Your task to perform on an android device: clear all cookies in the chrome app Image 0: 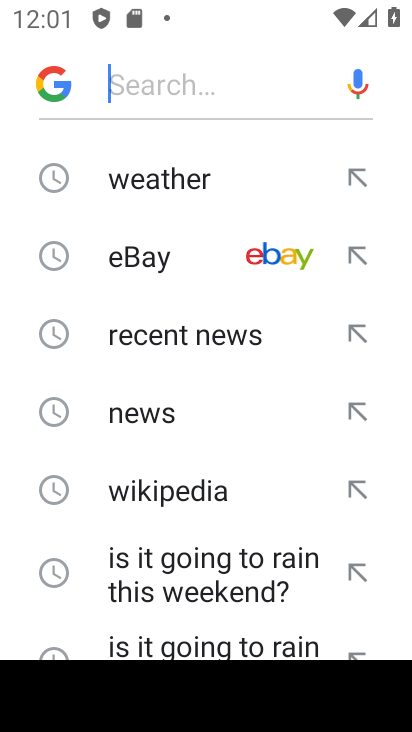
Step 0: press home button
Your task to perform on an android device: clear all cookies in the chrome app Image 1: 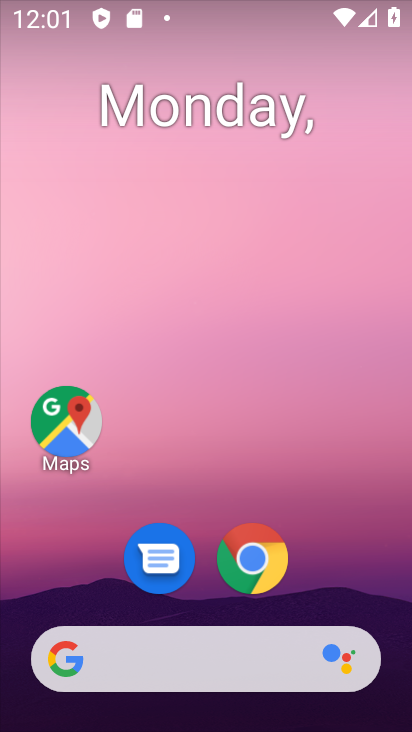
Step 1: drag from (371, 562) to (366, 193)
Your task to perform on an android device: clear all cookies in the chrome app Image 2: 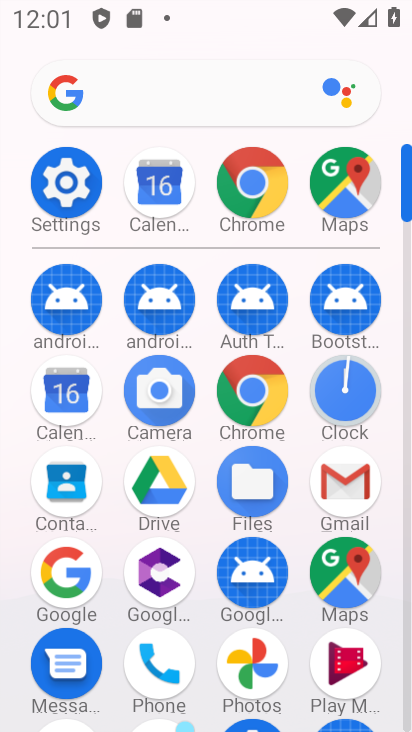
Step 2: click (247, 206)
Your task to perform on an android device: clear all cookies in the chrome app Image 3: 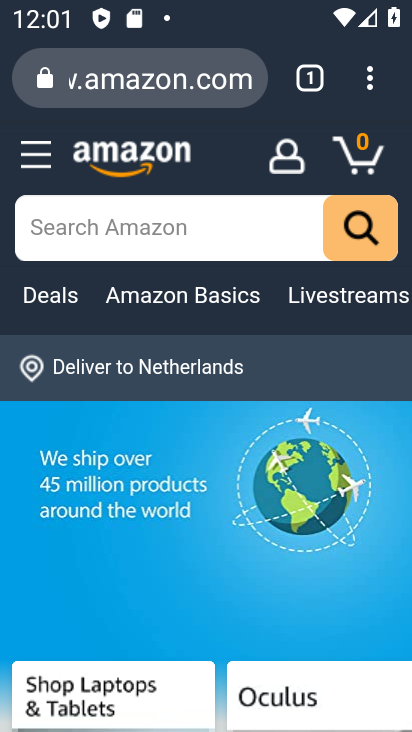
Step 3: click (371, 86)
Your task to perform on an android device: clear all cookies in the chrome app Image 4: 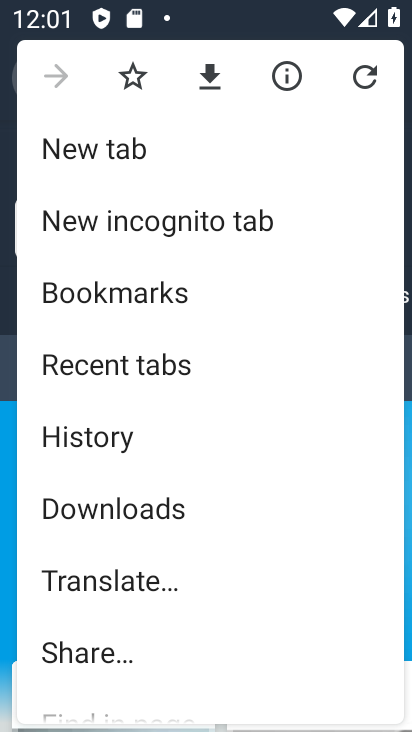
Step 4: drag from (318, 616) to (300, 385)
Your task to perform on an android device: clear all cookies in the chrome app Image 5: 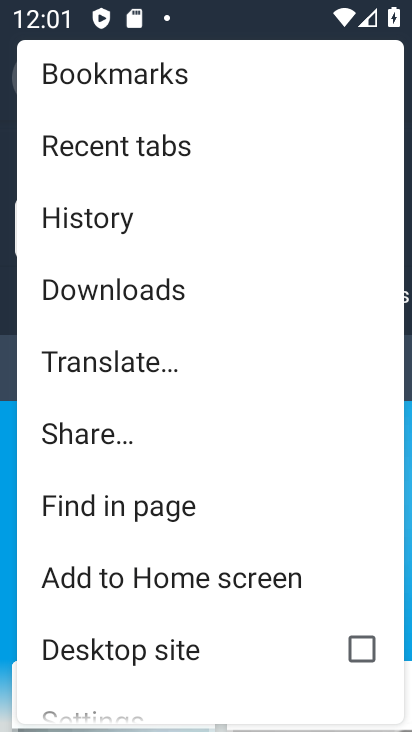
Step 5: drag from (316, 523) to (322, 463)
Your task to perform on an android device: clear all cookies in the chrome app Image 6: 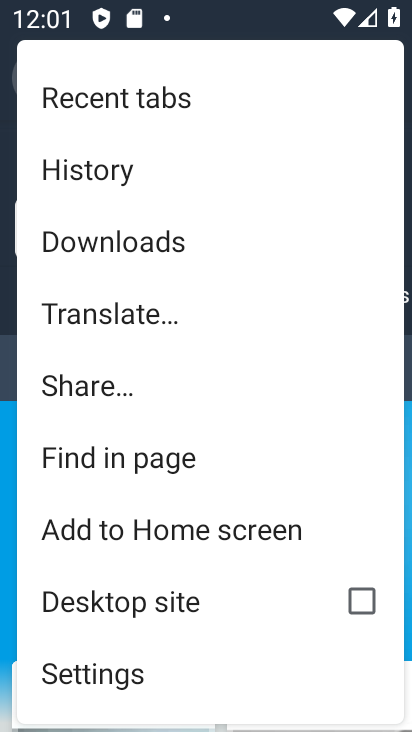
Step 6: click (117, 682)
Your task to perform on an android device: clear all cookies in the chrome app Image 7: 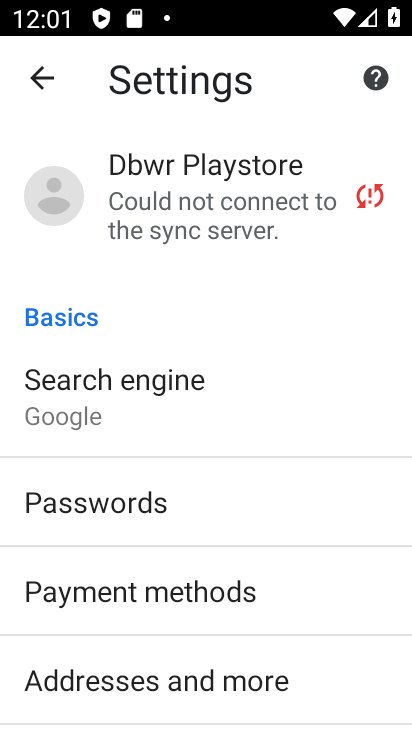
Step 7: drag from (342, 644) to (337, 435)
Your task to perform on an android device: clear all cookies in the chrome app Image 8: 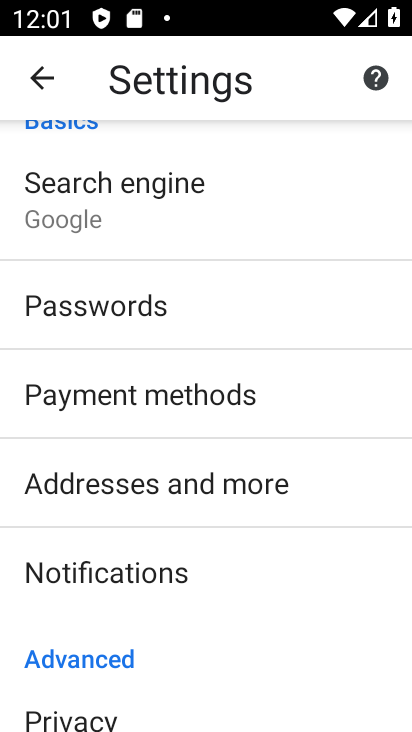
Step 8: drag from (319, 632) to (318, 476)
Your task to perform on an android device: clear all cookies in the chrome app Image 9: 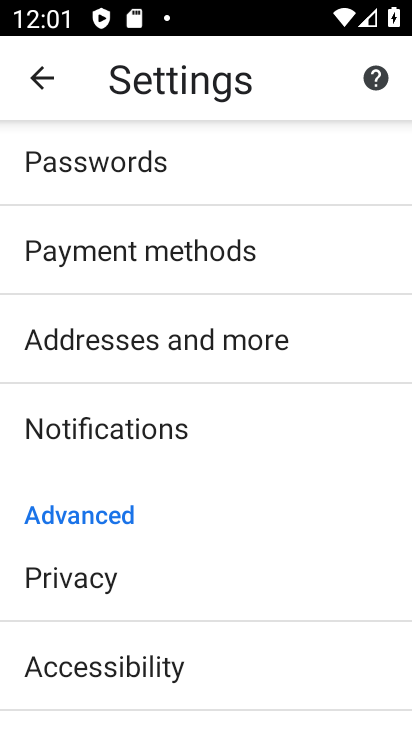
Step 9: click (130, 586)
Your task to perform on an android device: clear all cookies in the chrome app Image 10: 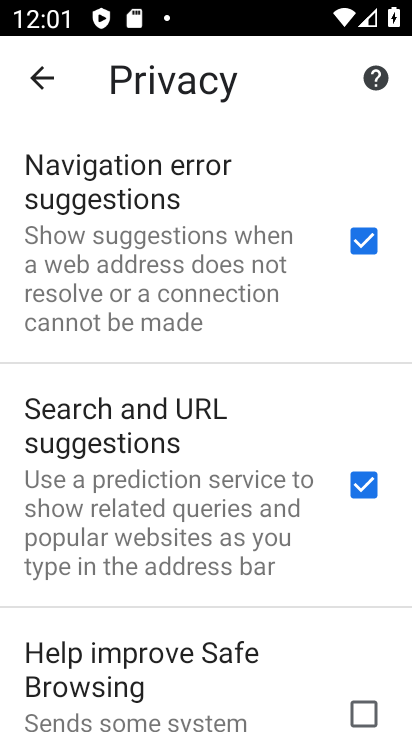
Step 10: drag from (243, 674) to (264, 437)
Your task to perform on an android device: clear all cookies in the chrome app Image 11: 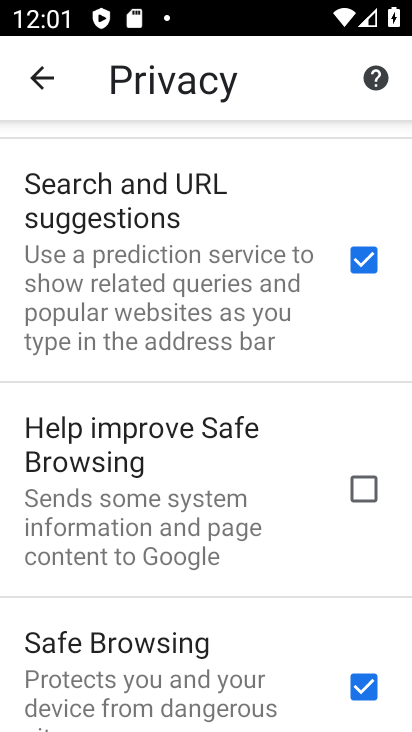
Step 11: drag from (258, 631) to (270, 441)
Your task to perform on an android device: clear all cookies in the chrome app Image 12: 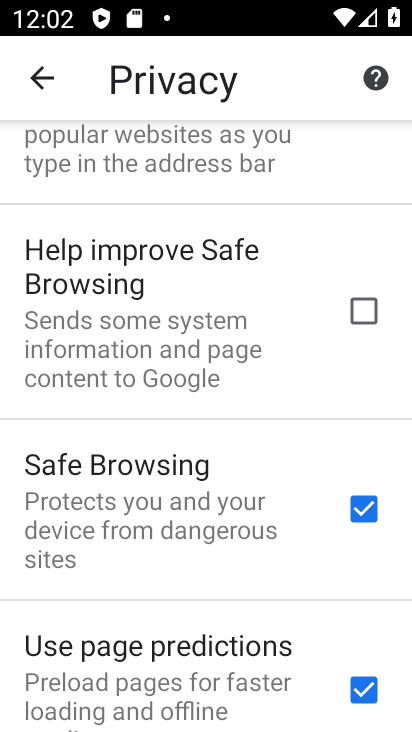
Step 12: drag from (266, 572) to (276, 354)
Your task to perform on an android device: clear all cookies in the chrome app Image 13: 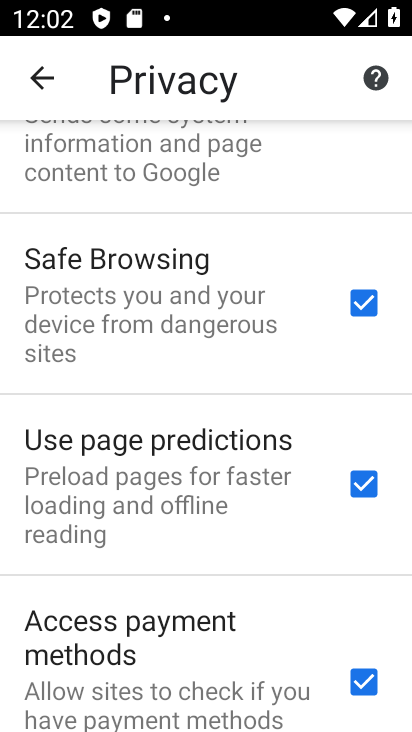
Step 13: drag from (255, 617) to (255, 401)
Your task to perform on an android device: clear all cookies in the chrome app Image 14: 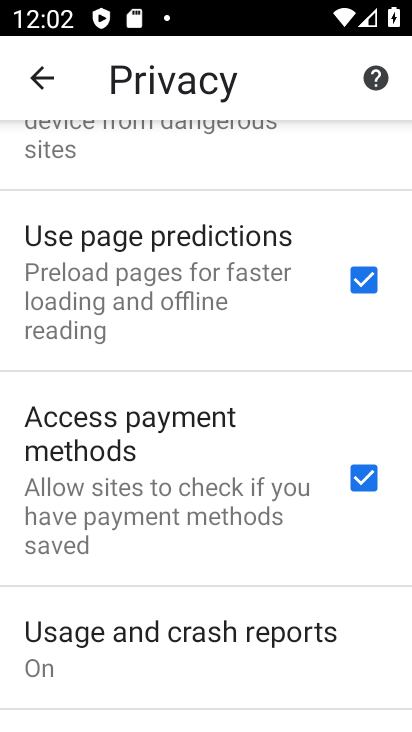
Step 14: drag from (230, 671) to (251, 395)
Your task to perform on an android device: clear all cookies in the chrome app Image 15: 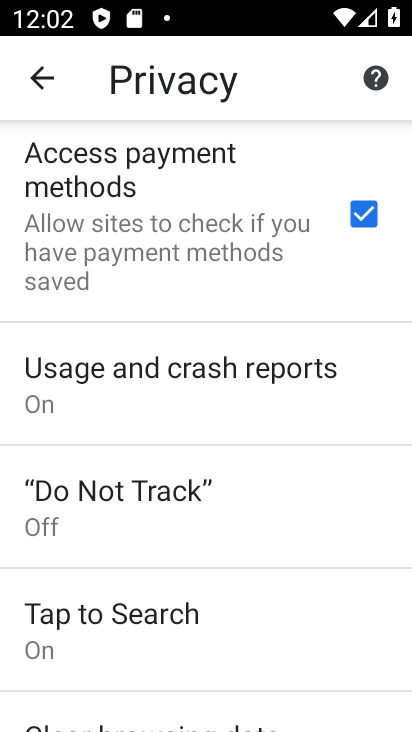
Step 15: drag from (238, 652) to (264, 469)
Your task to perform on an android device: clear all cookies in the chrome app Image 16: 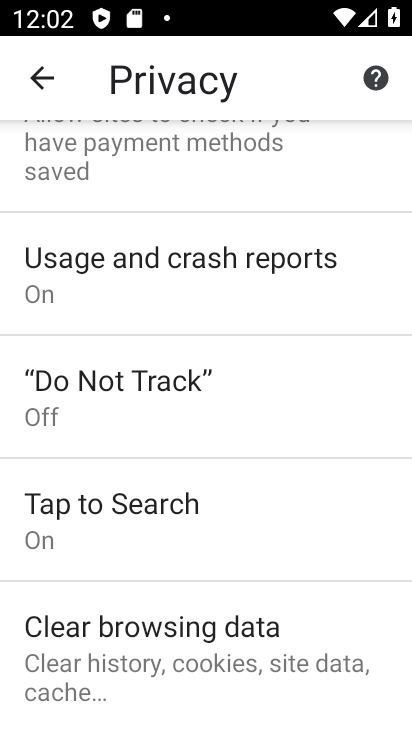
Step 16: click (258, 655)
Your task to perform on an android device: clear all cookies in the chrome app Image 17: 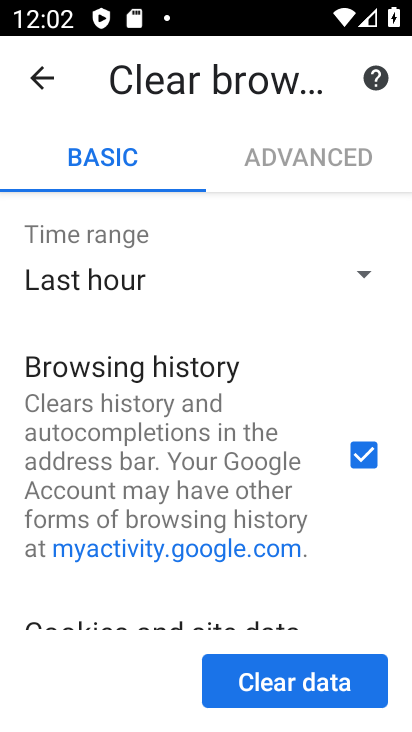
Step 17: click (286, 688)
Your task to perform on an android device: clear all cookies in the chrome app Image 18: 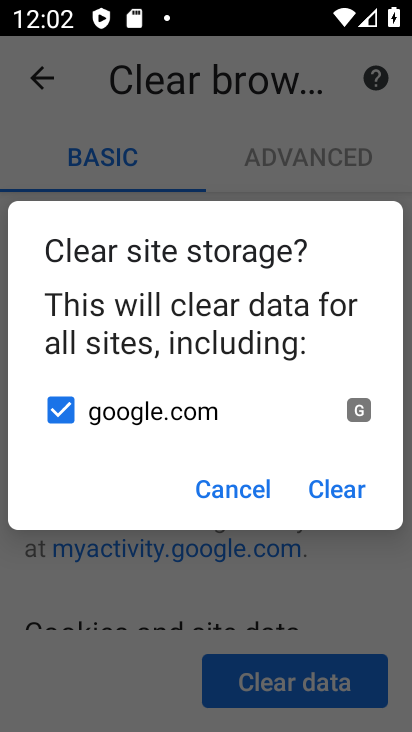
Step 18: click (336, 487)
Your task to perform on an android device: clear all cookies in the chrome app Image 19: 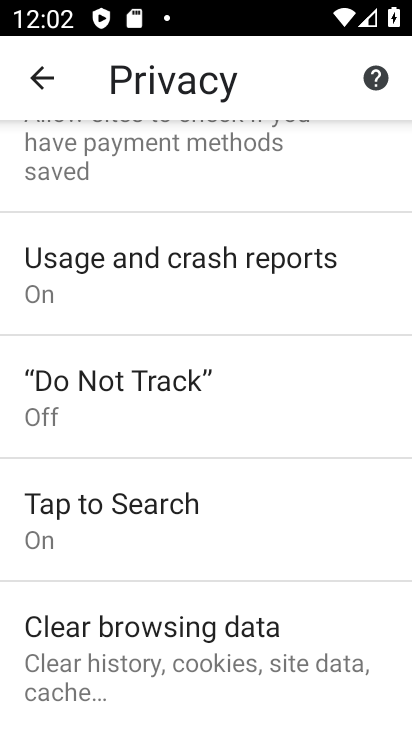
Step 19: click (246, 664)
Your task to perform on an android device: clear all cookies in the chrome app Image 20: 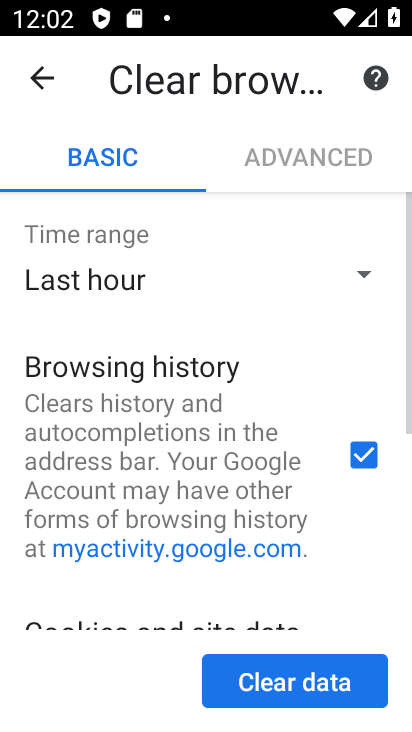
Step 20: click (294, 691)
Your task to perform on an android device: clear all cookies in the chrome app Image 21: 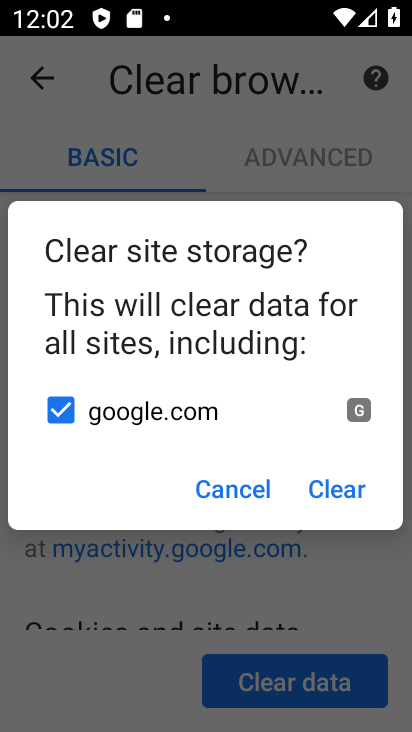
Step 21: click (331, 500)
Your task to perform on an android device: clear all cookies in the chrome app Image 22: 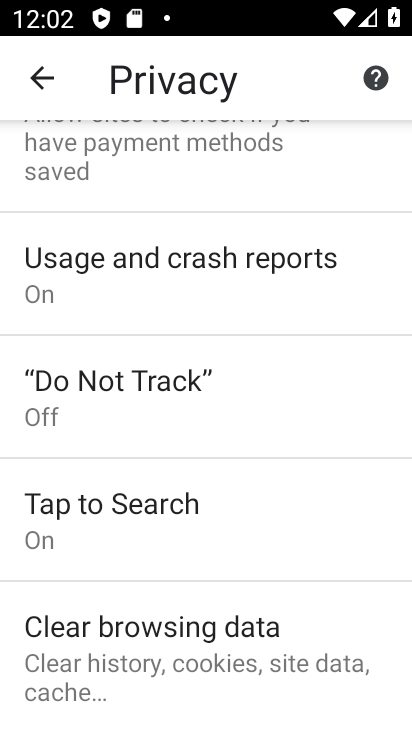
Step 22: task complete